Your task to perform on an android device: change your default location settings in chrome Image 0: 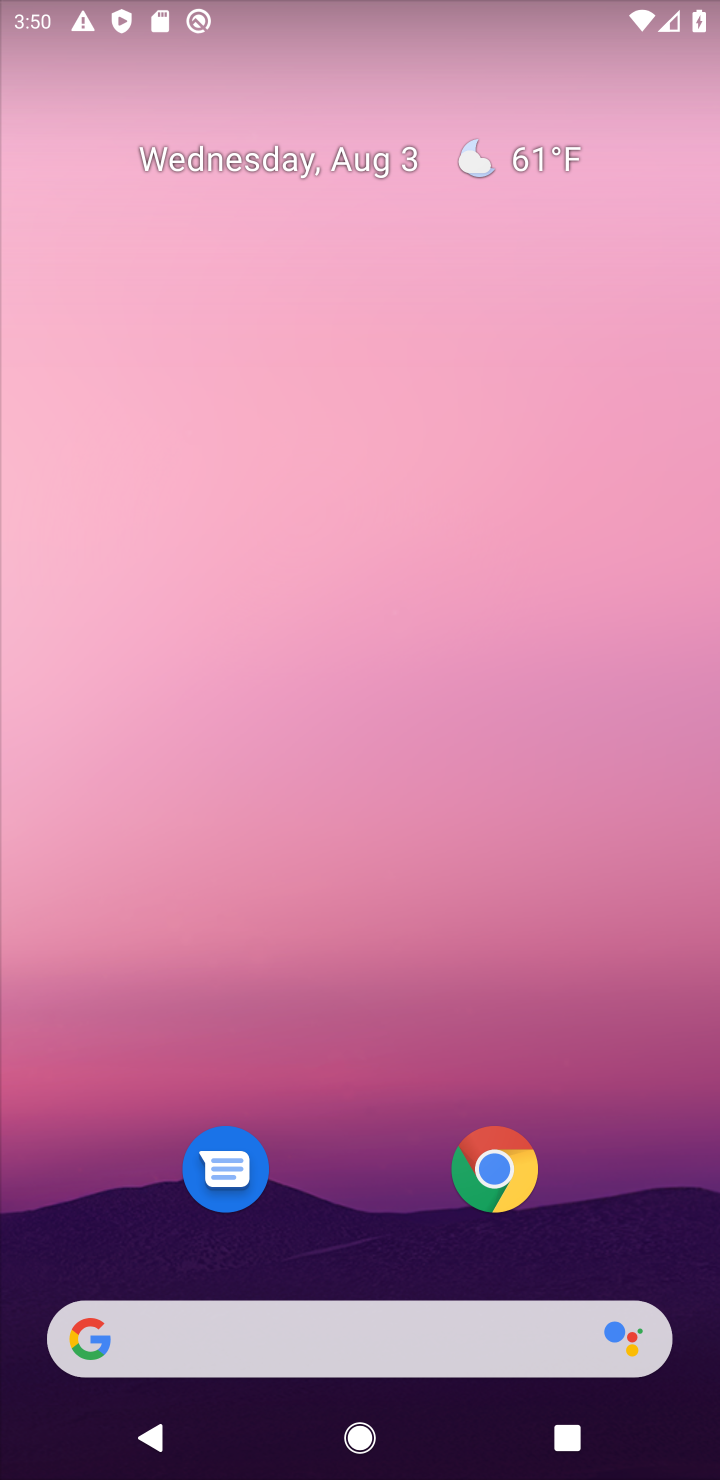
Step 0: click (509, 1176)
Your task to perform on an android device: change your default location settings in chrome Image 1: 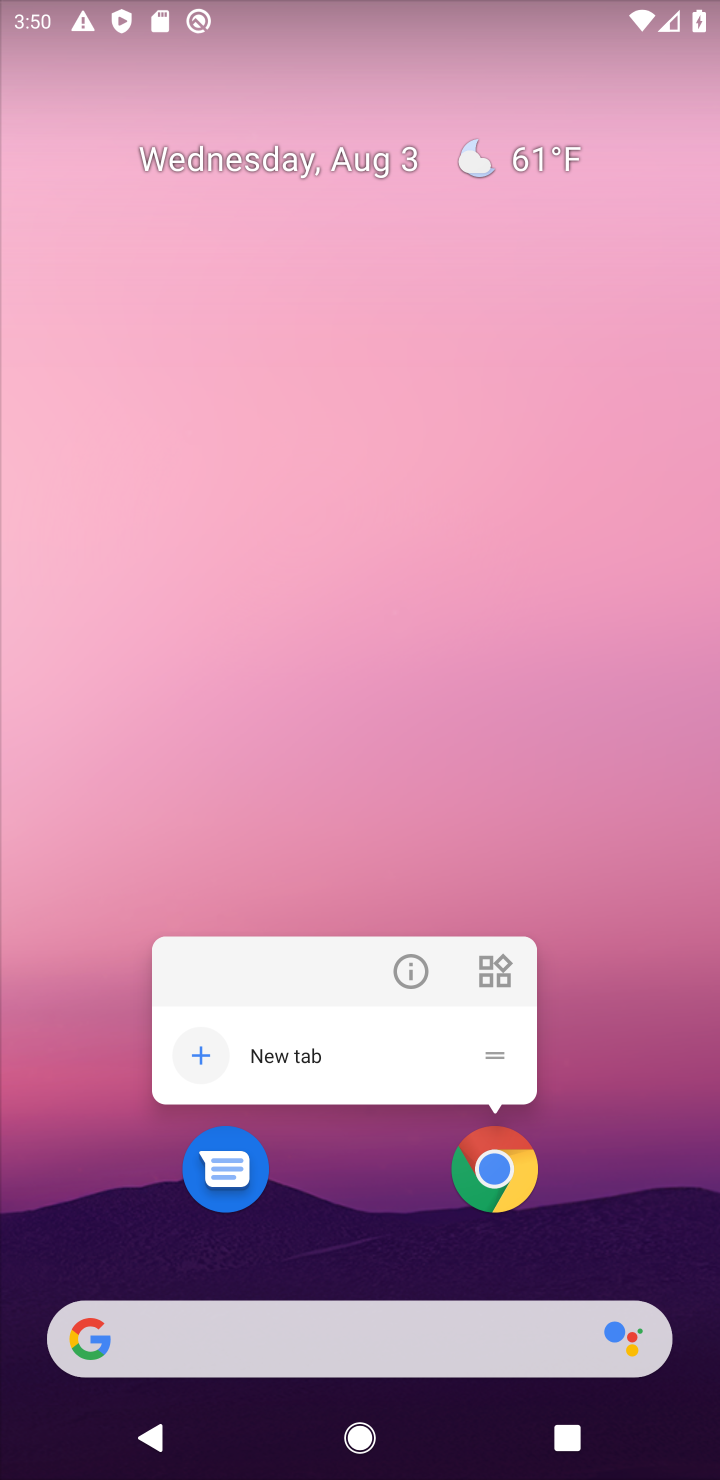
Step 1: click (509, 1183)
Your task to perform on an android device: change your default location settings in chrome Image 2: 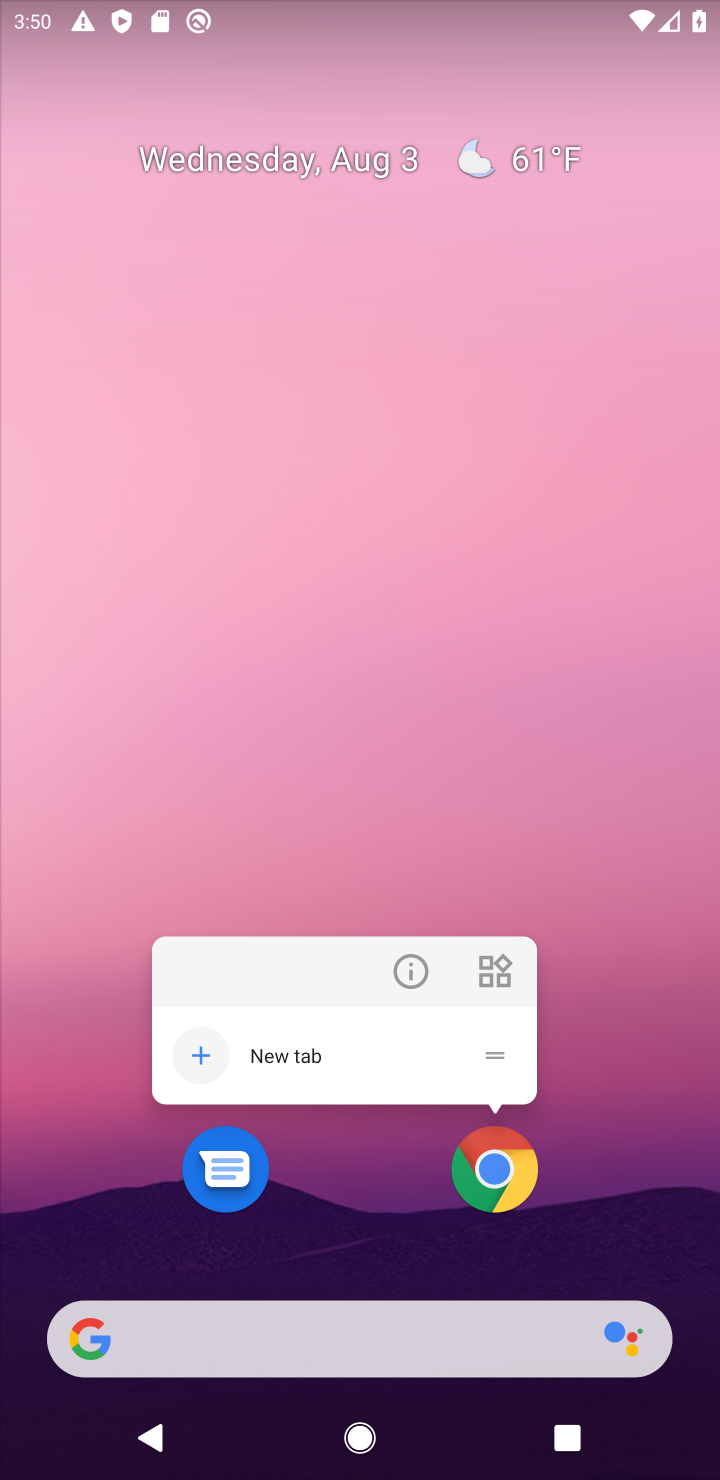
Step 2: click (508, 1167)
Your task to perform on an android device: change your default location settings in chrome Image 3: 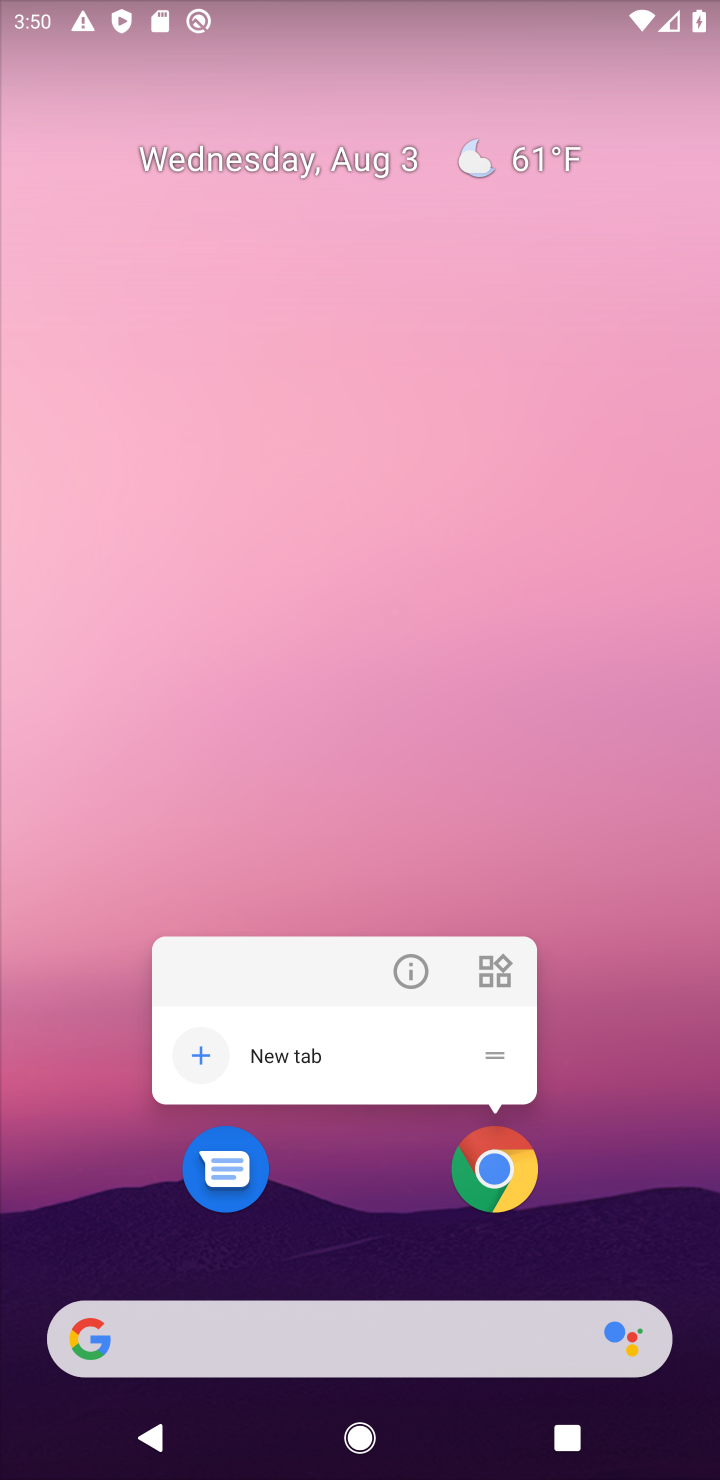
Step 3: click (512, 1169)
Your task to perform on an android device: change your default location settings in chrome Image 4: 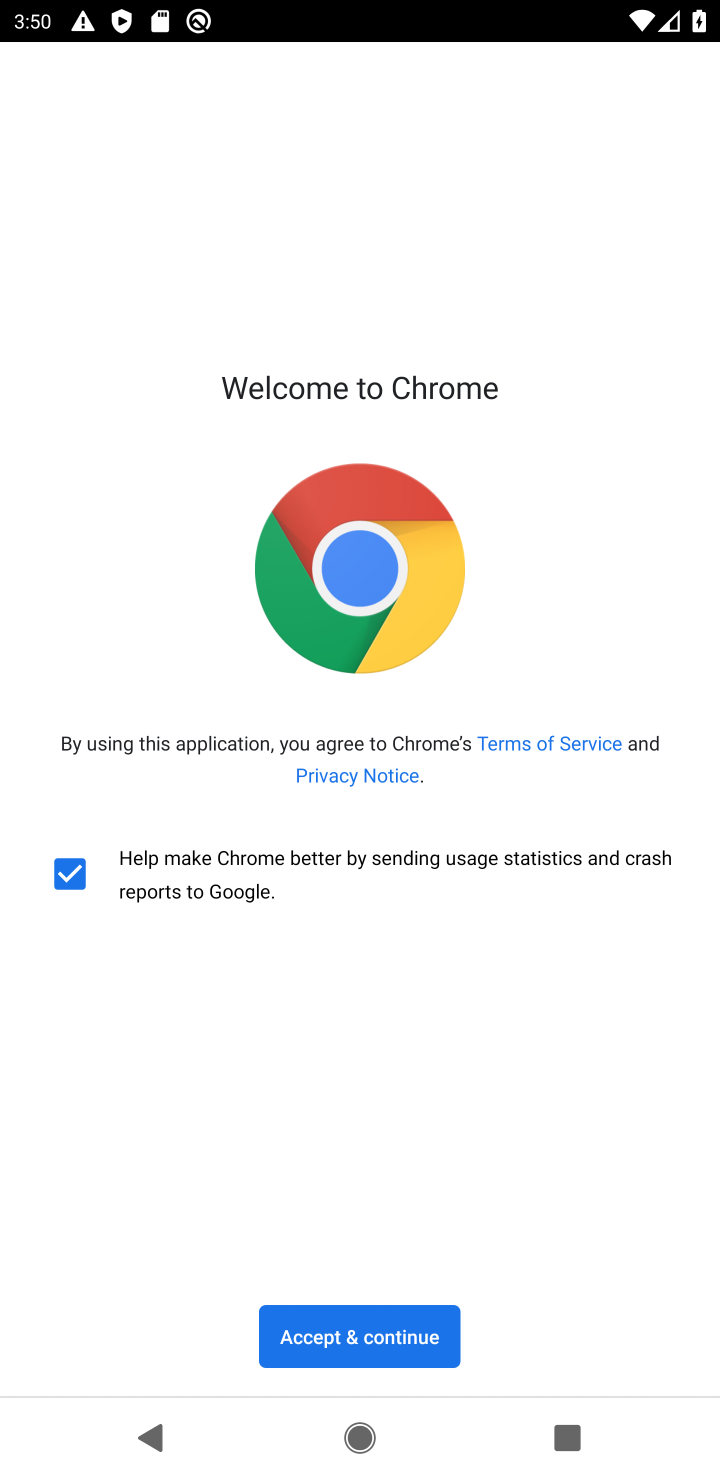
Step 4: click (426, 1339)
Your task to perform on an android device: change your default location settings in chrome Image 5: 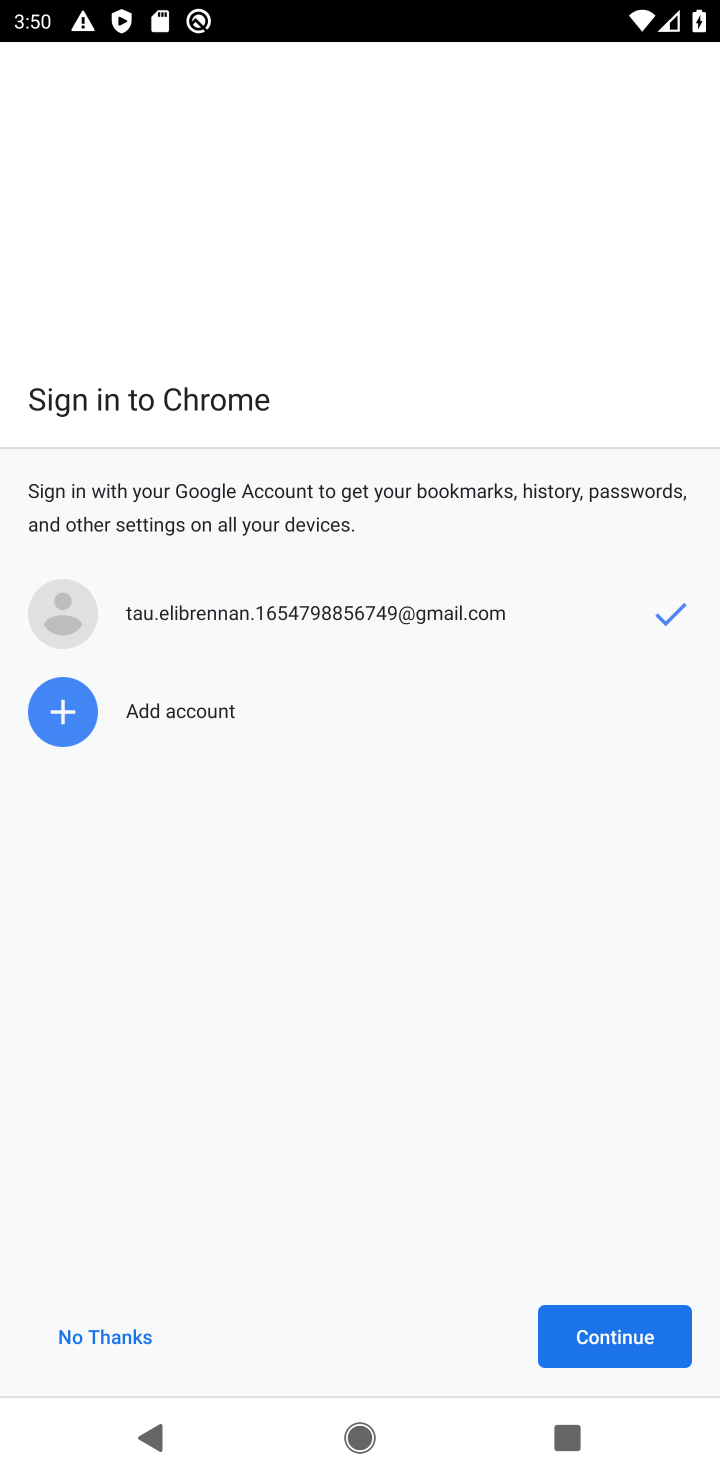
Step 5: click (643, 1335)
Your task to perform on an android device: change your default location settings in chrome Image 6: 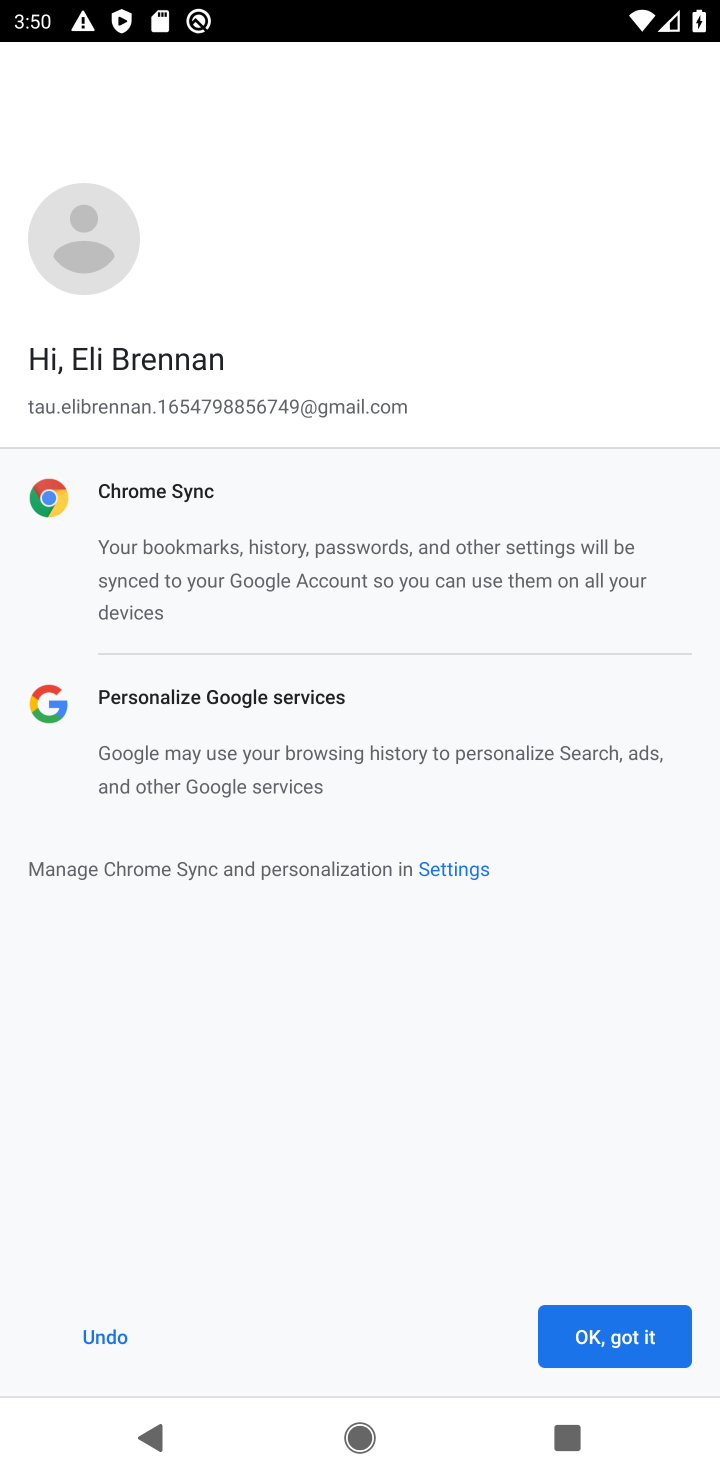
Step 6: click (623, 1351)
Your task to perform on an android device: change your default location settings in chrome Image 7: 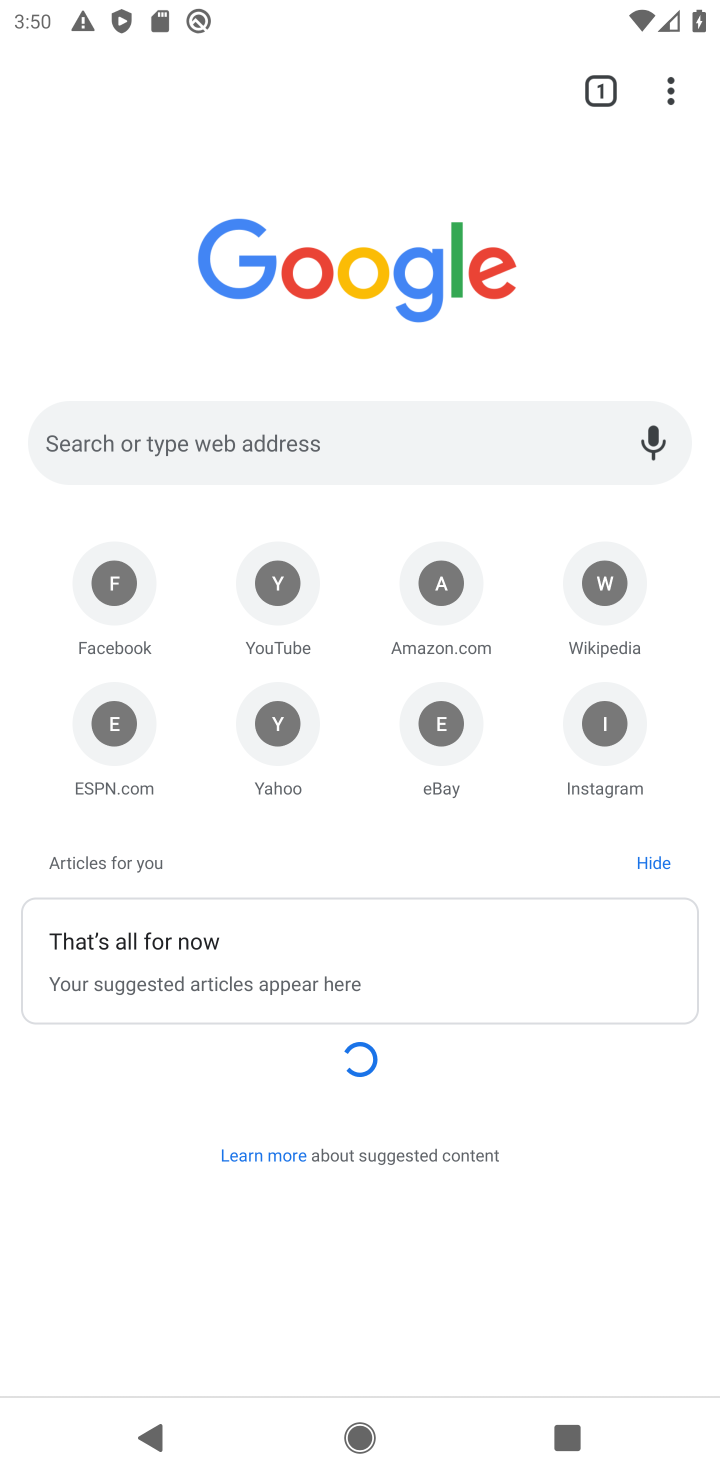
Step 7: click (665, 78)
Your task to perform on an android device: change your default location settings in chrome Image 8: 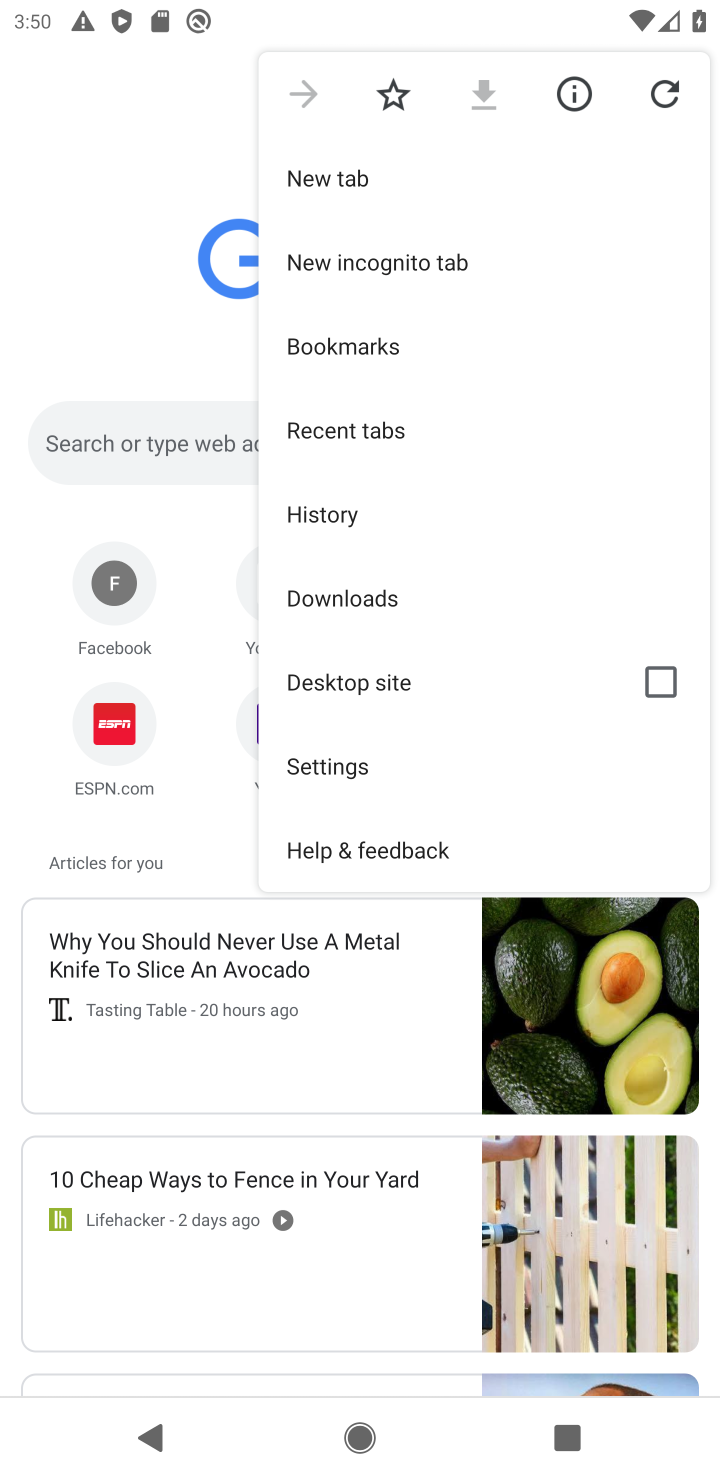
Step 8: click (352, 776)
Your task to perform on an android device: change your default location settings in chrome Image 9: 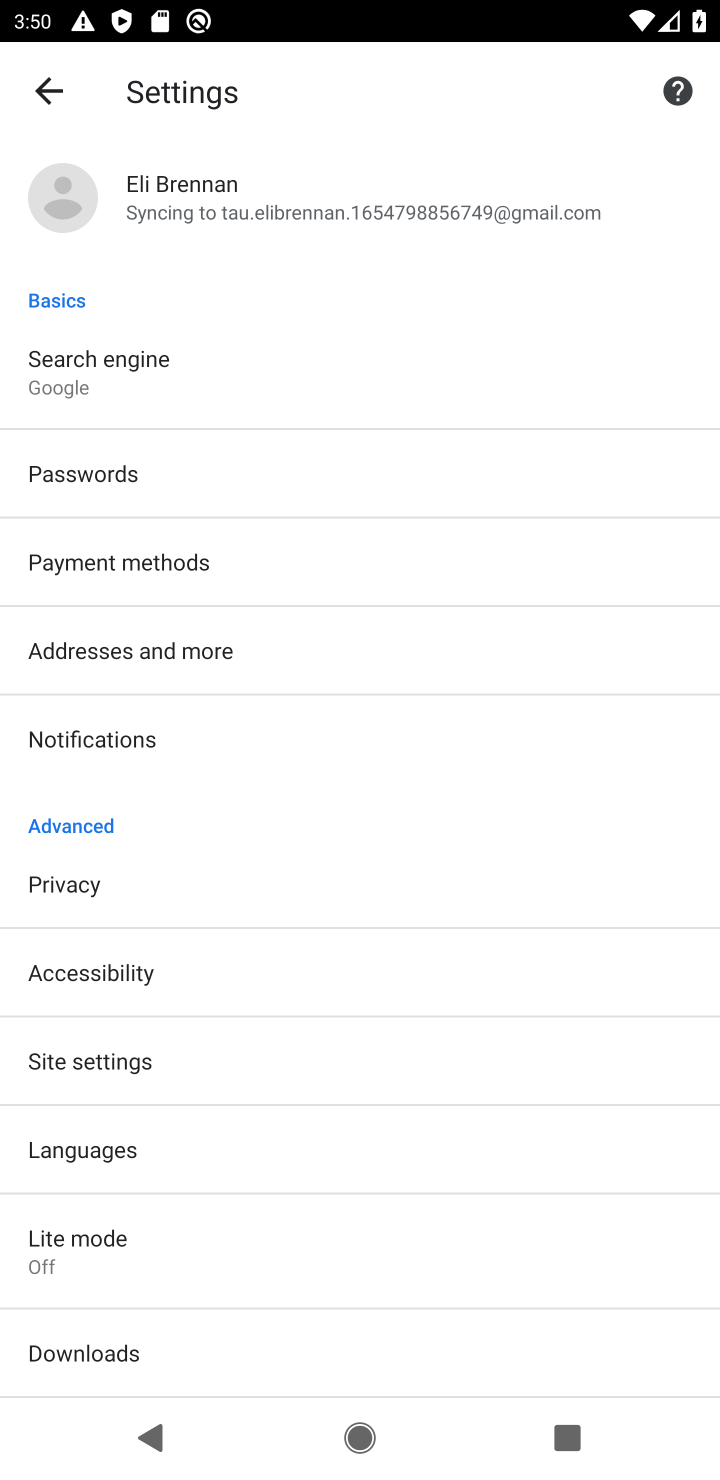
Step 9: drag from (151, 1264) to (202, 796)
Your task to perform on an android device: change your default location settings in chrome Image 10: 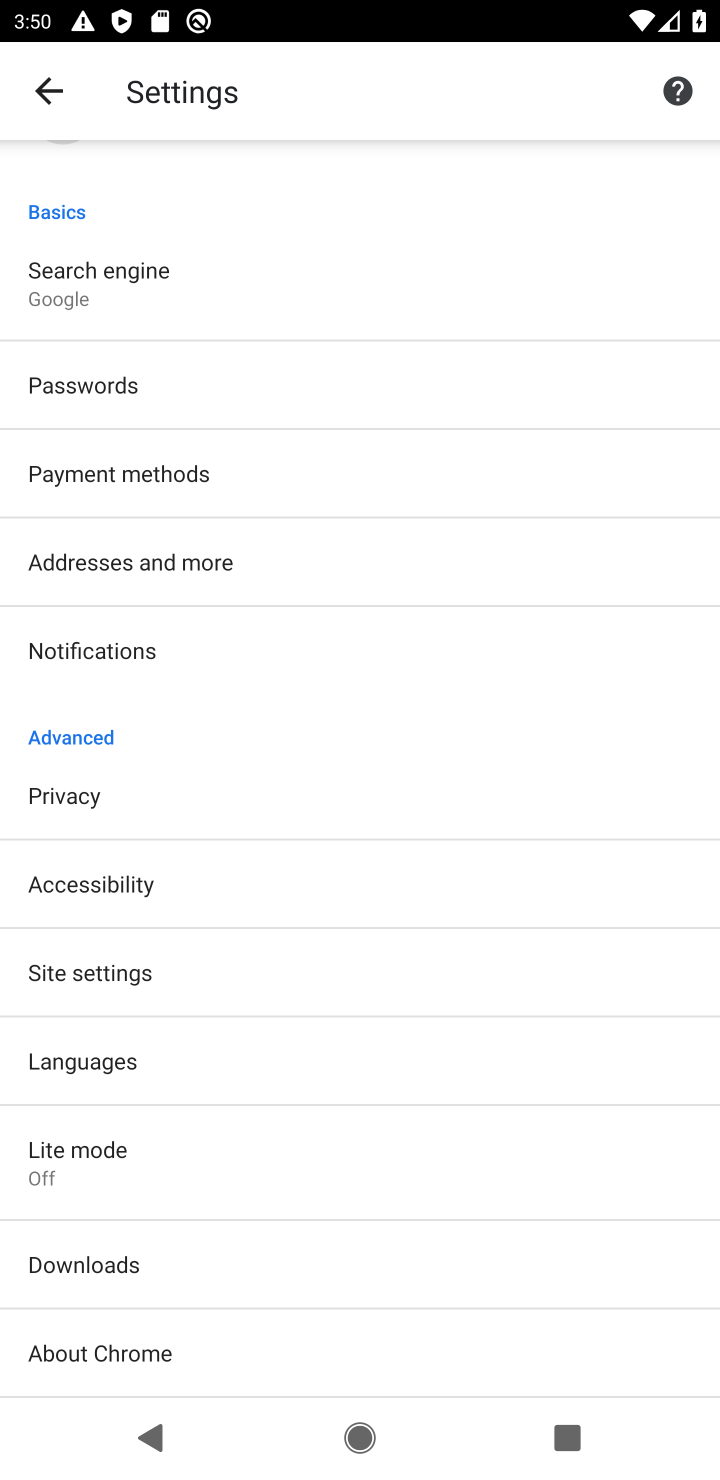
Step 10: click (99, 969)
Your task to perform on an android device: change your default location settings in chrome Image 11: 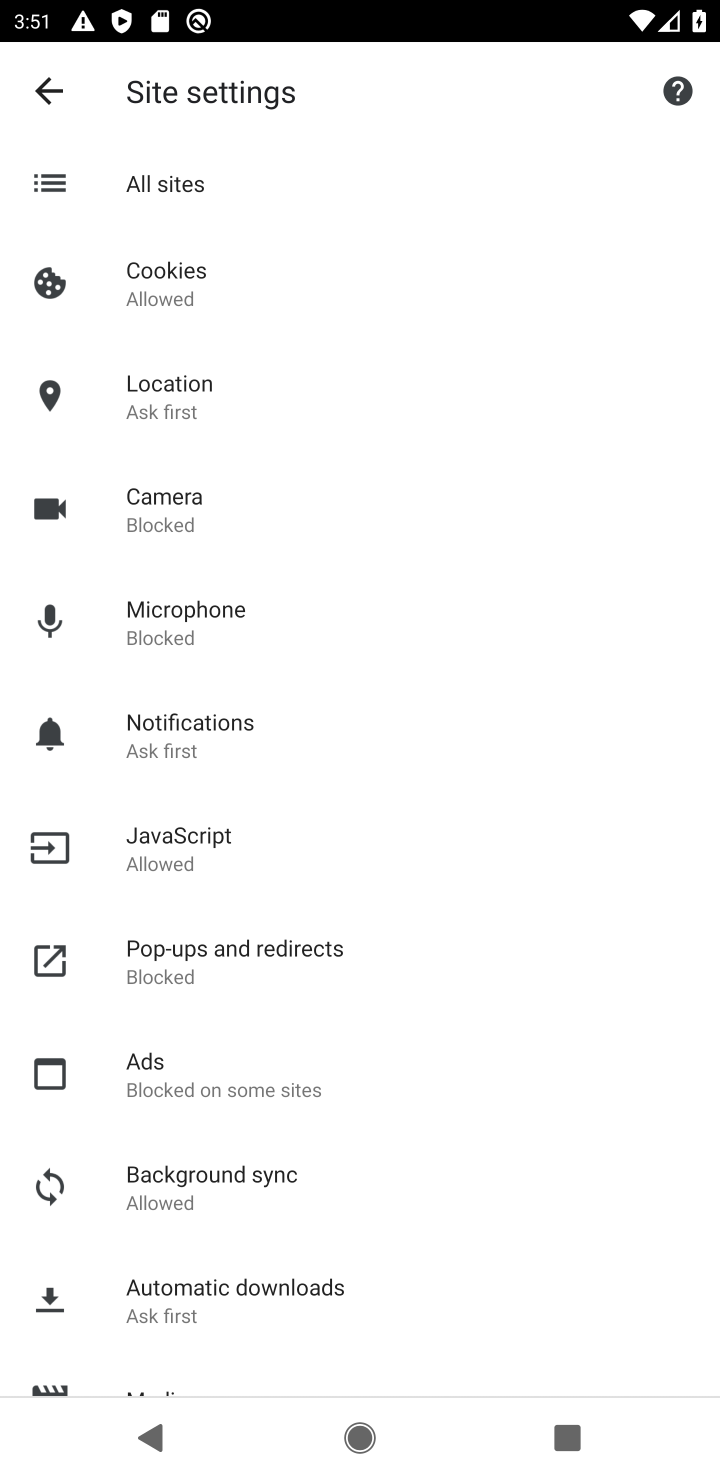
Step 11: click (182, 401)
Your task to perform on an android device: change your default location settings in chrome Image 12: 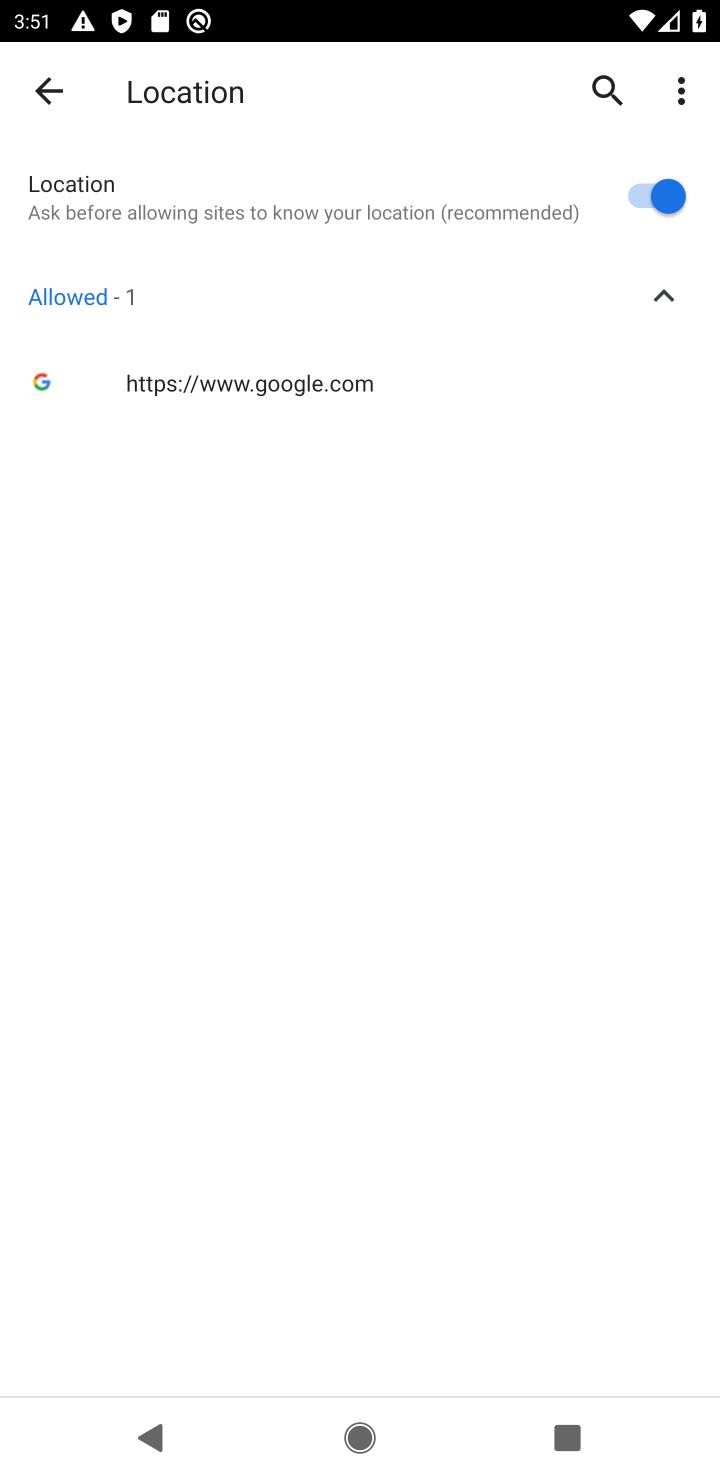
Step 12: click (596, 203)
Your task to perform on an android device: change your default location settings in chrome Image 13: 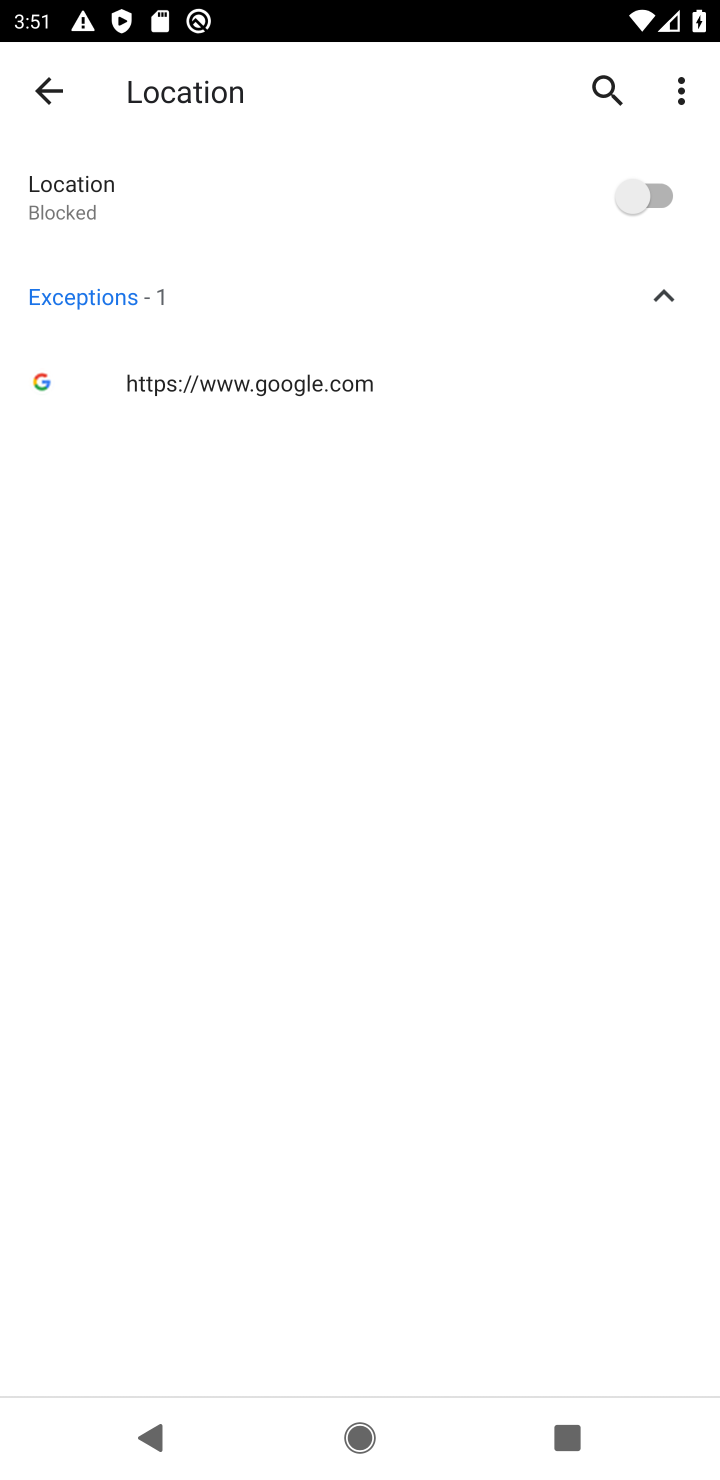
Step 13: task complete